Your task to perform on an android device: move an email to a new category in the gmail app Image 0: 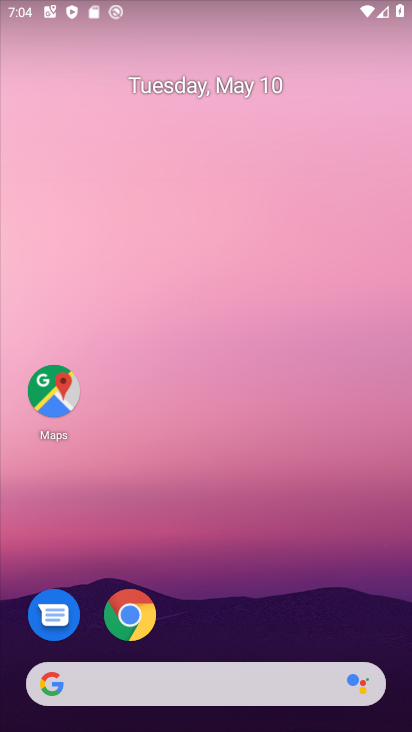
Step 0: drag from (162, 525) to (75, 126)
Your task to perform on an android device: move an email to a new category in the gmail app Image 1: 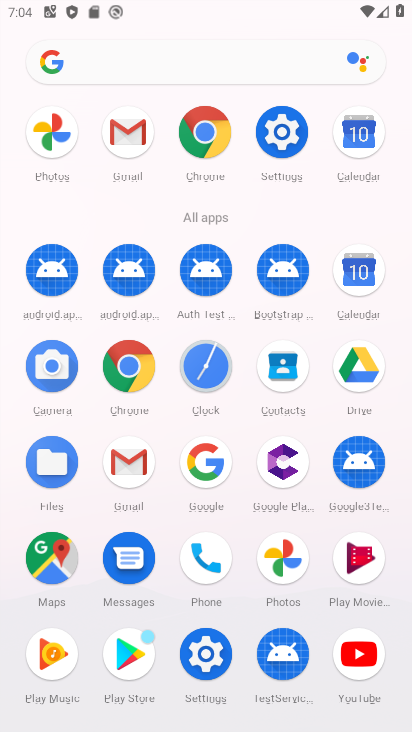
Step 1: click (127, 134)
Your task to perform on an android device: move an email to a new category in the gmail app Image 2: 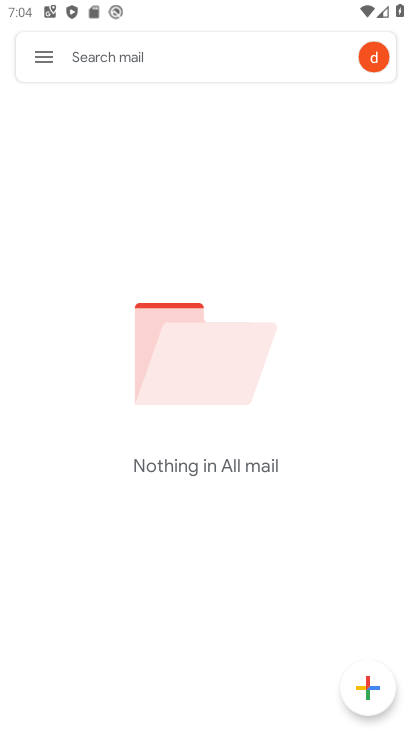
Step 2: task complete